Your task to perform on an android device: Turn off the flashlight Image 0: 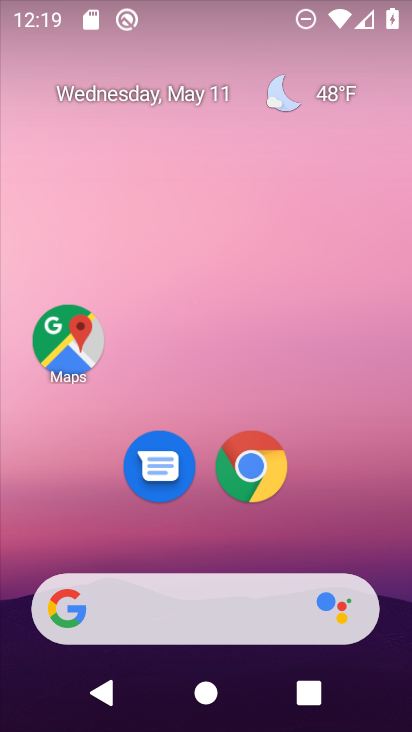
Step 0: drag from (200, 550) to (239, 11)
Your task to perform on an android device: Turn off the flashlight Image 1: 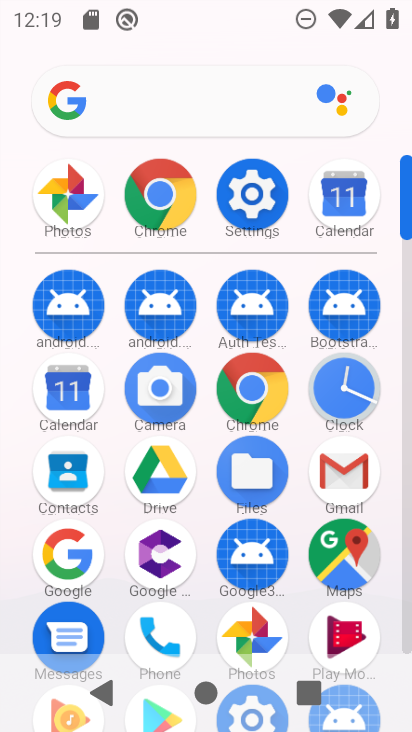
Step 1: click (253, 190)
Your task to perform on an android device: Turn off the flashlight Image 2: 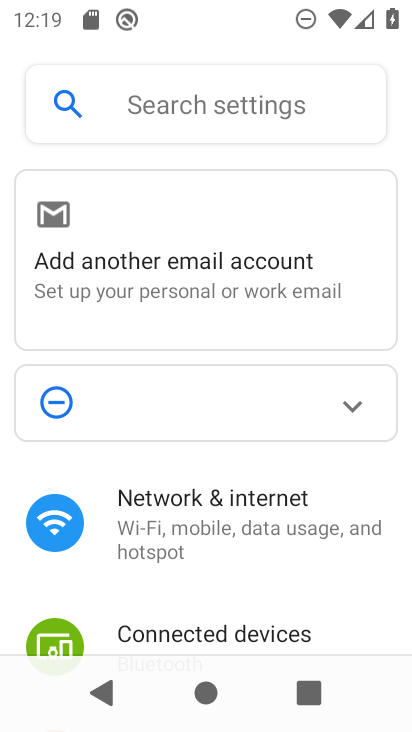
Step 2: click (178, 101)
Your task to perform on an android device: Turn off the flashlight Image 3: 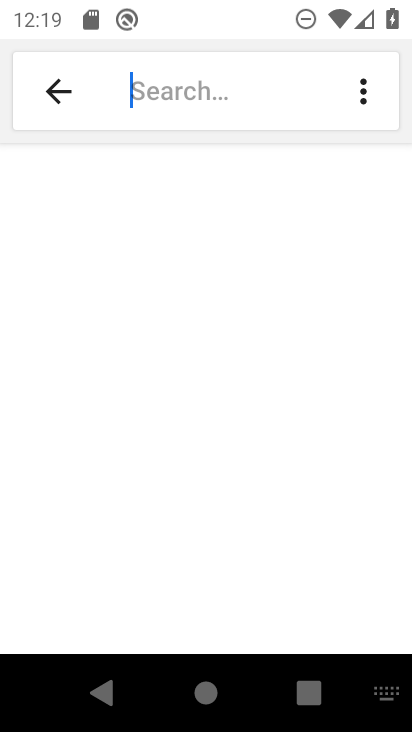
Step 3: type "flashlight"
Your task to perform on an android device: Turn off the flashlight Image 4: 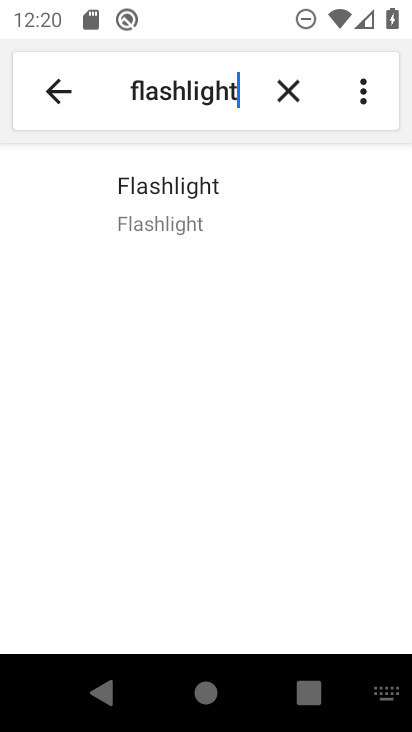
Step 4: click (208, 205)
Your task to perform on an android device: Turn off the flashlight Image 5: 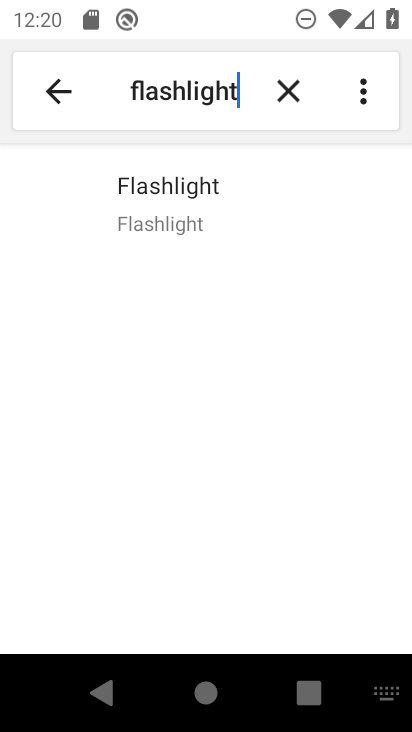
Step 5: click (224, 207)
Your task to perform on an android device: Turn off the flashlight Image 6: 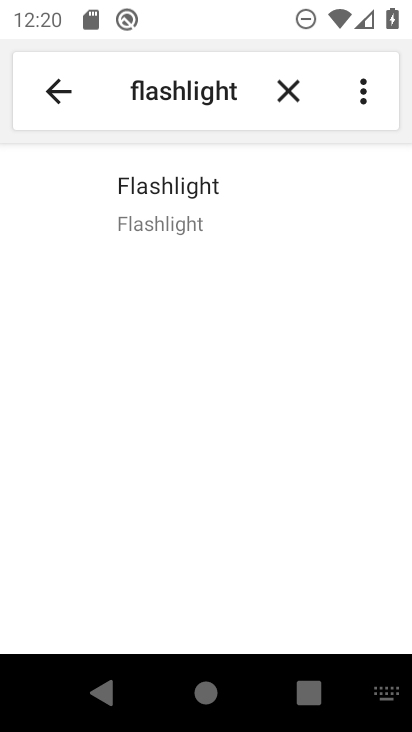
Step 6: task complete